Your task to perform on an android device: Is it going to rain tomorrow? Image 0: 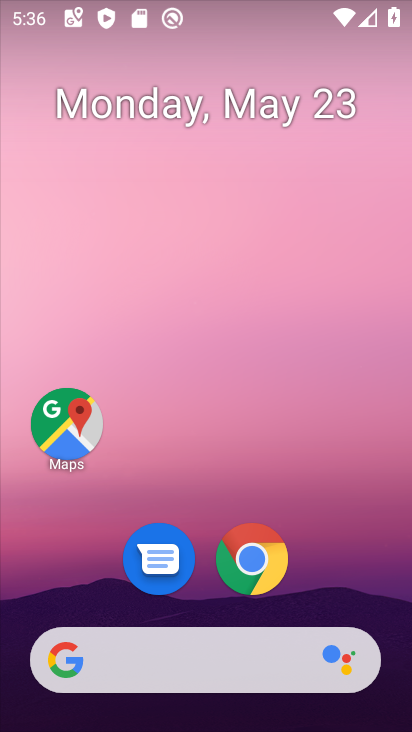
Step 0: drag from (287, 439) to (279, 1)
Your task to perform on an android device: Is it going to rain tomorrow? Image 1: 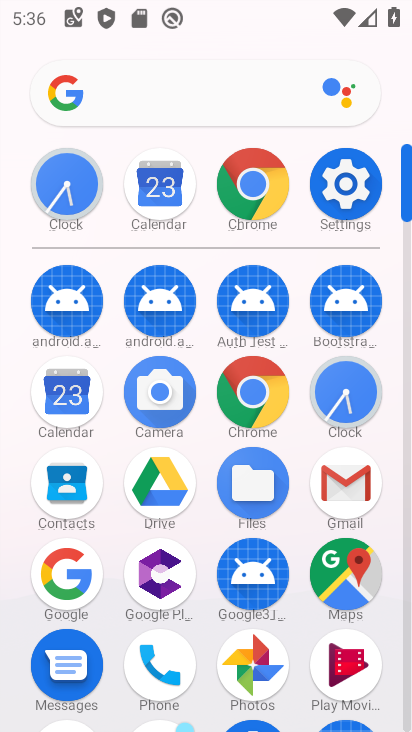
Step 1: press home button
Your task to perform on an android device: Is it going to rain tomorrow? Image 2: 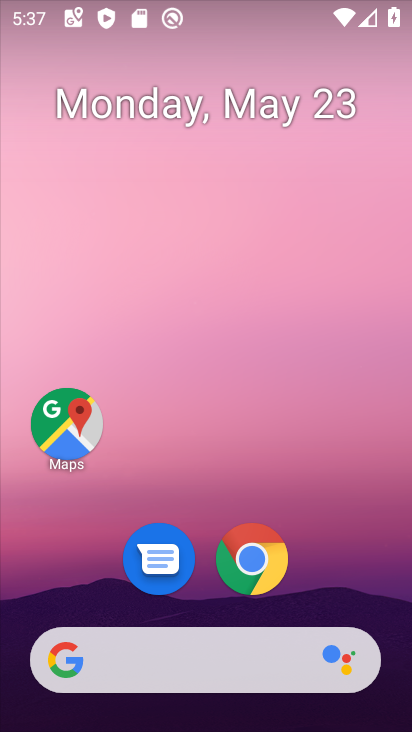
Step 2: drag from (186, 600) to (276, 0)
Your task to perform on an android device: Is it going to rain tomorrow? Image 3: 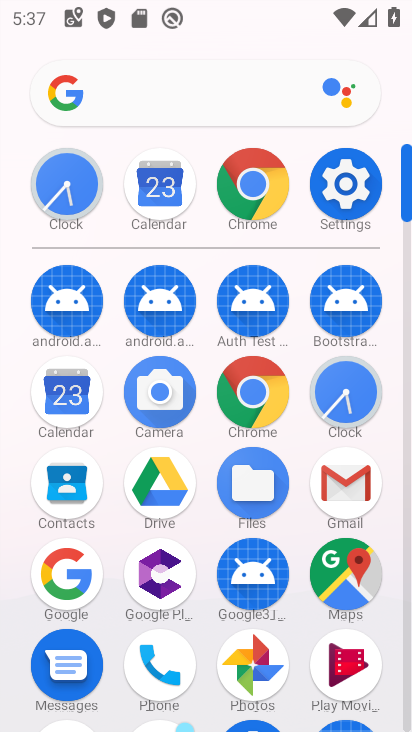
Step 3: press home button
Your task to perform on an android device: Is it going to rain tomorrow? Image 4: 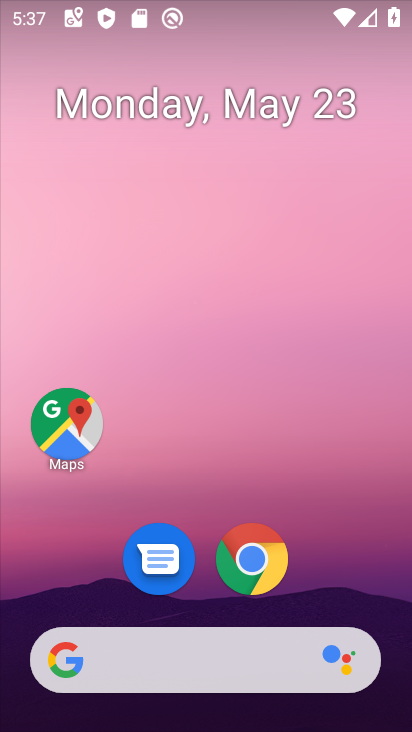
Step 4: drag from (267, 579) to (230, 96)
Your task to perform on an android device: Is it going to rain tomorrow? Image 5: 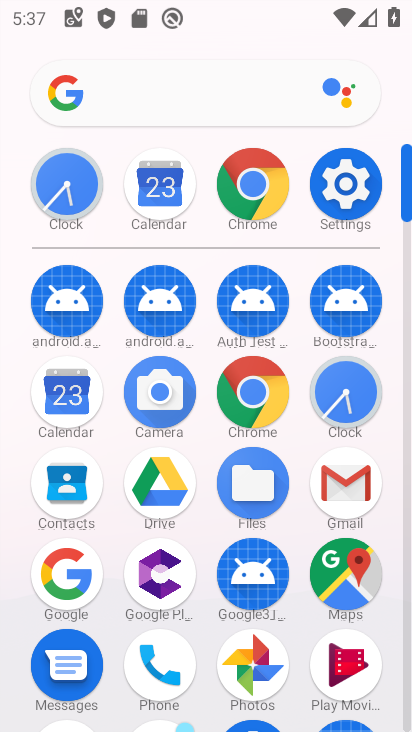
Step 5: press home button
Your task to perform on an android device: Is it going to rain tomorrow? Image 6: 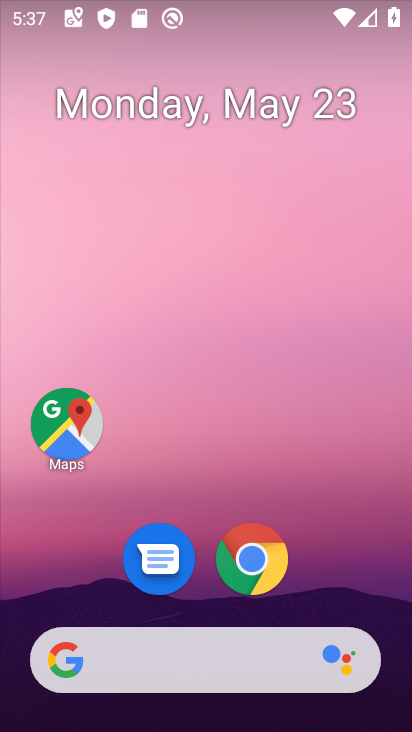
Step 6: drag from (76, 253) to (390, 263)
Your task to perform on an android device: Is it going to rain tomorrow? Image 7: 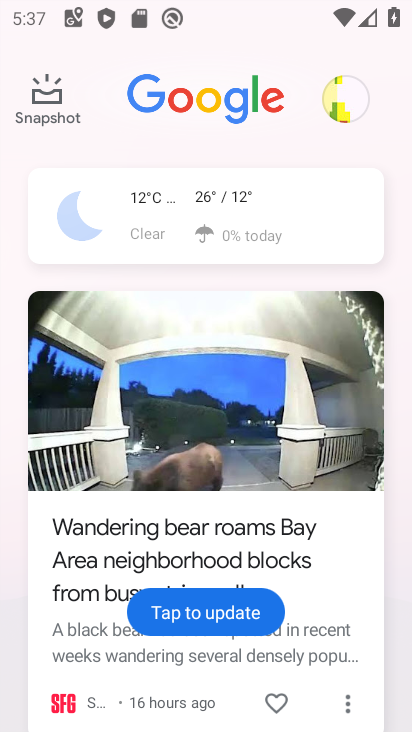
Step 7: click (139, 221)
Your task to perform on an android device: Is it going to rain tomorrow? Image 8: 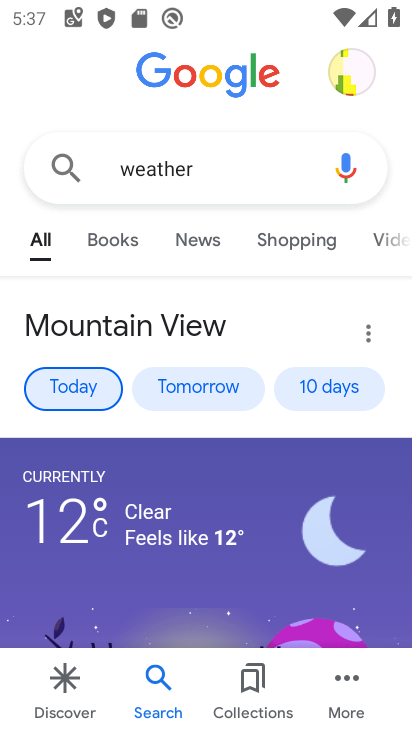
Step 8: click (189, 375)
Your task to perform on an android device: Is it going to rain tomorrow? Image 9: 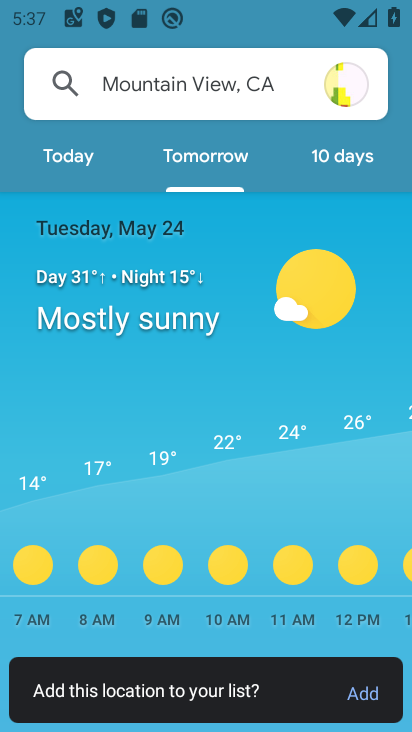
Step 9: task complete